Your task to perform on an android device: Open my contact list Image 0: 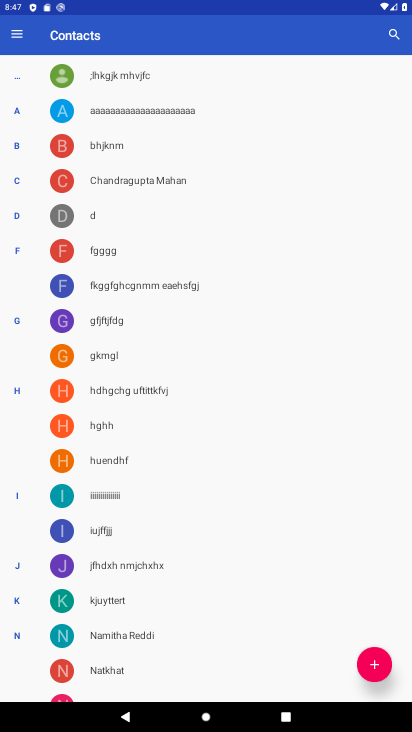
Step 0: task complete